Your task to perform on an android device: turn off location history Image 0: 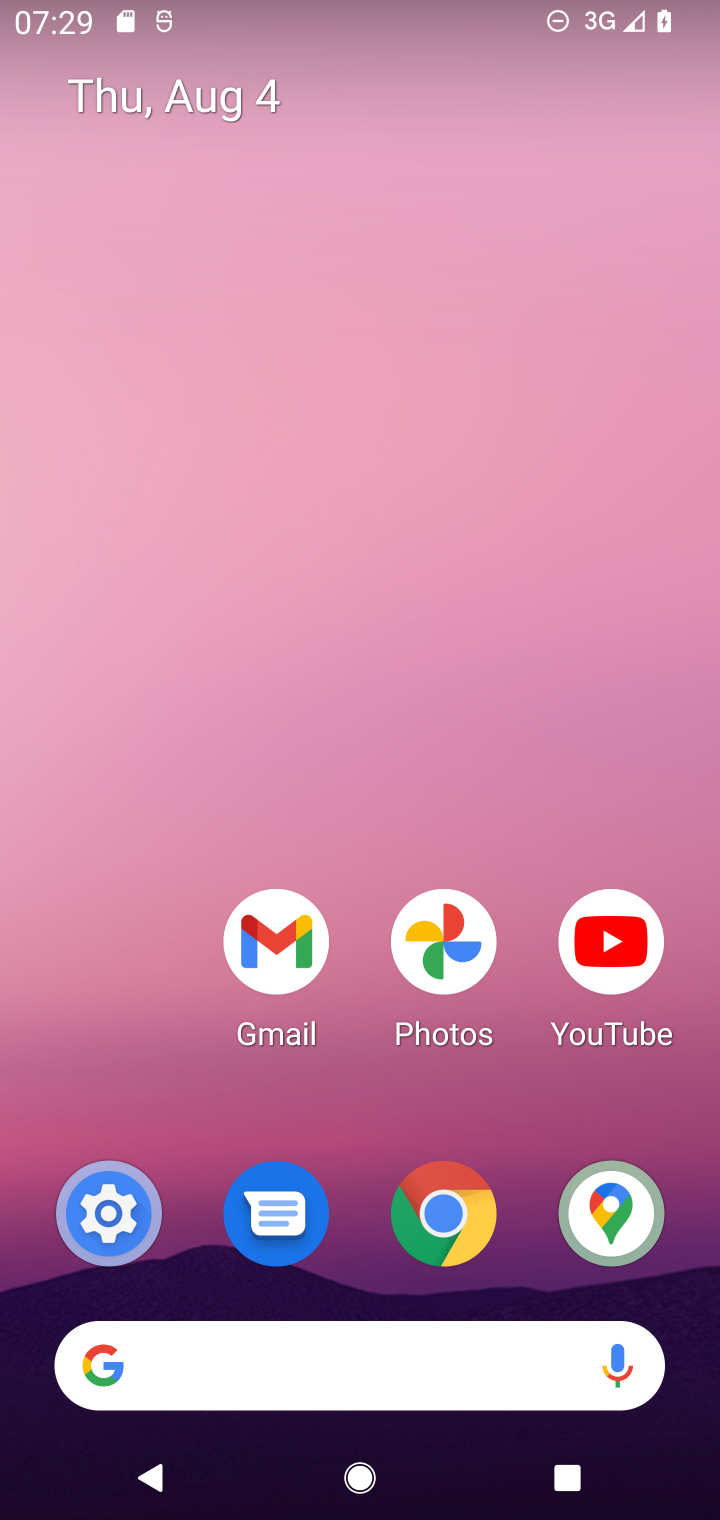
Step 0: press home button
Your task to perform on an android device: turn off location history Image 1: 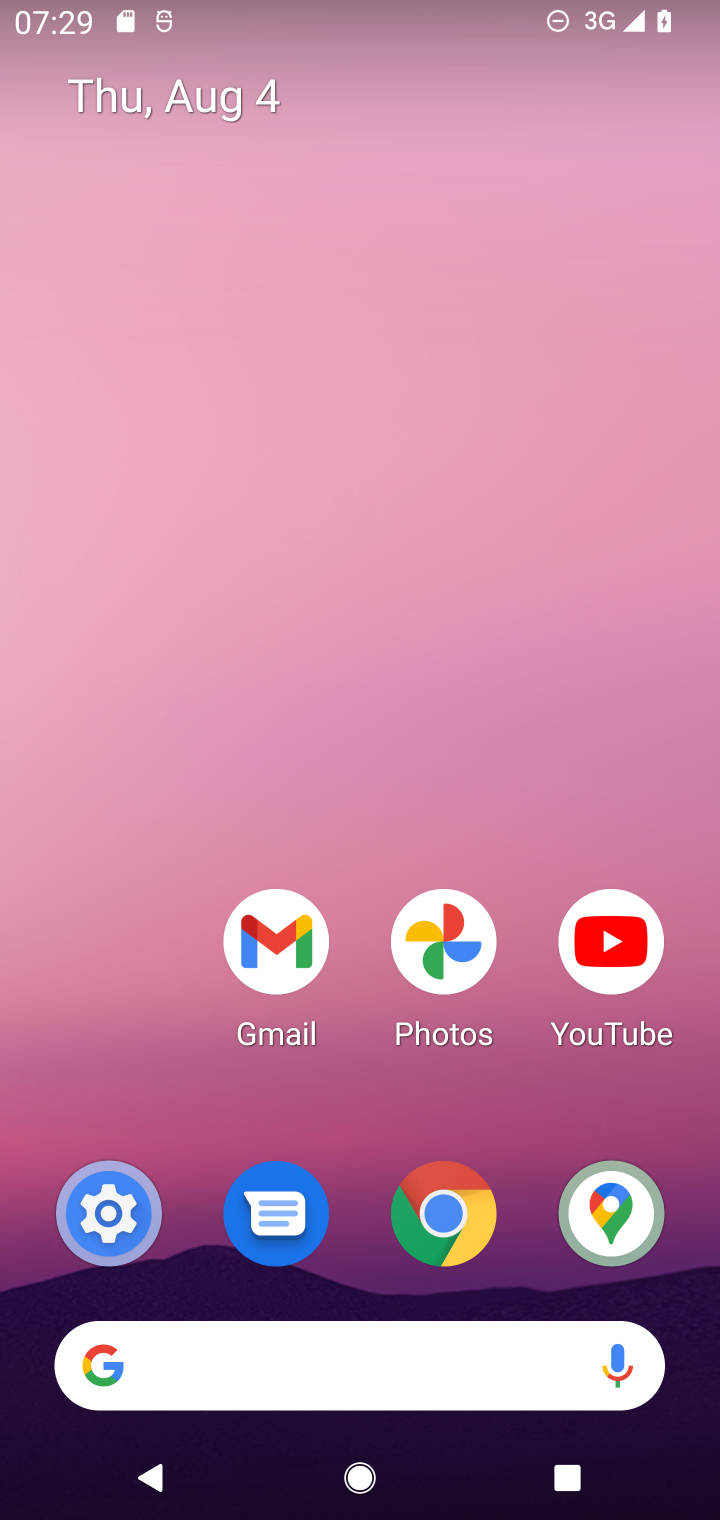
Step 1: drag from (169, 1100) to (160, 371)
Your task to perform on an android device: turn off location history Image 2: 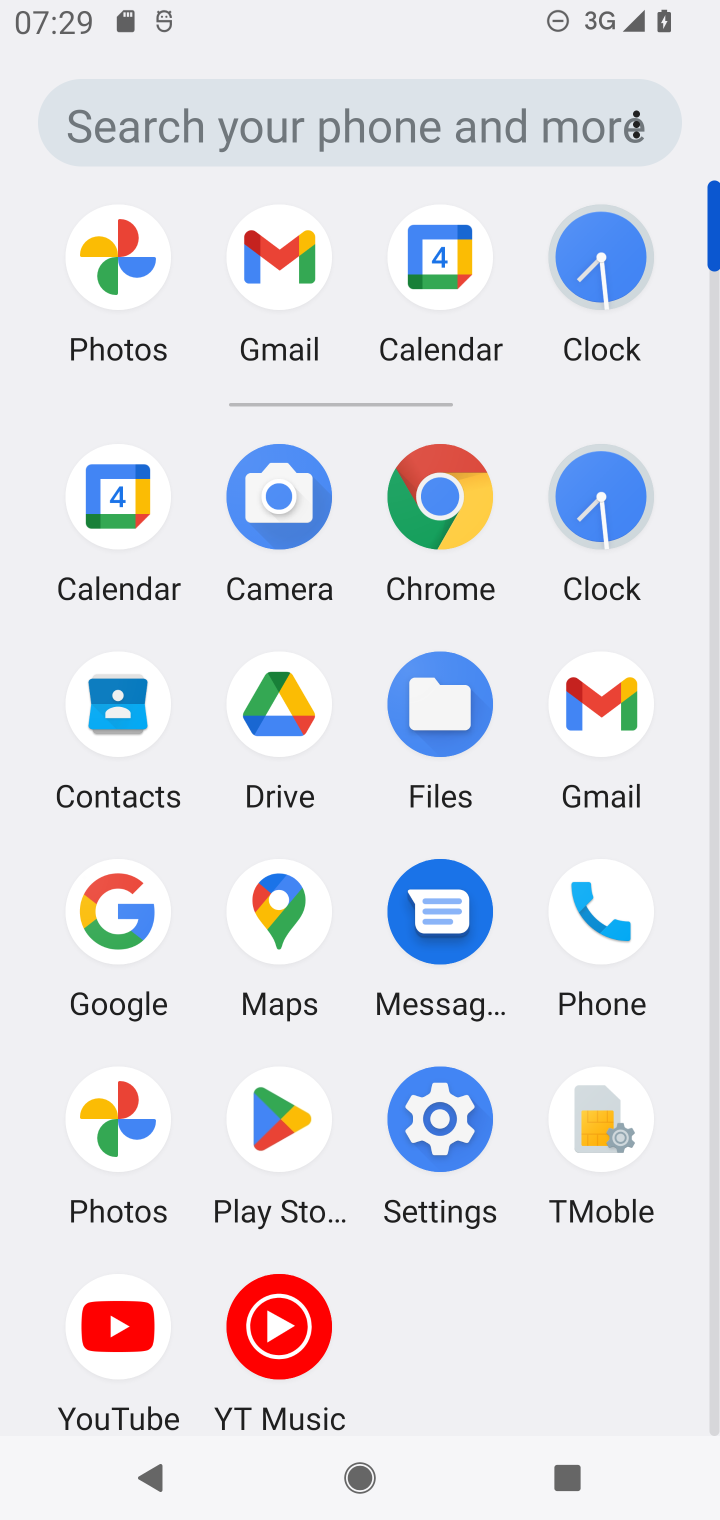
Step 2: click (437, 1135)
Your task to perform on an android device: turn off location history Image 3: 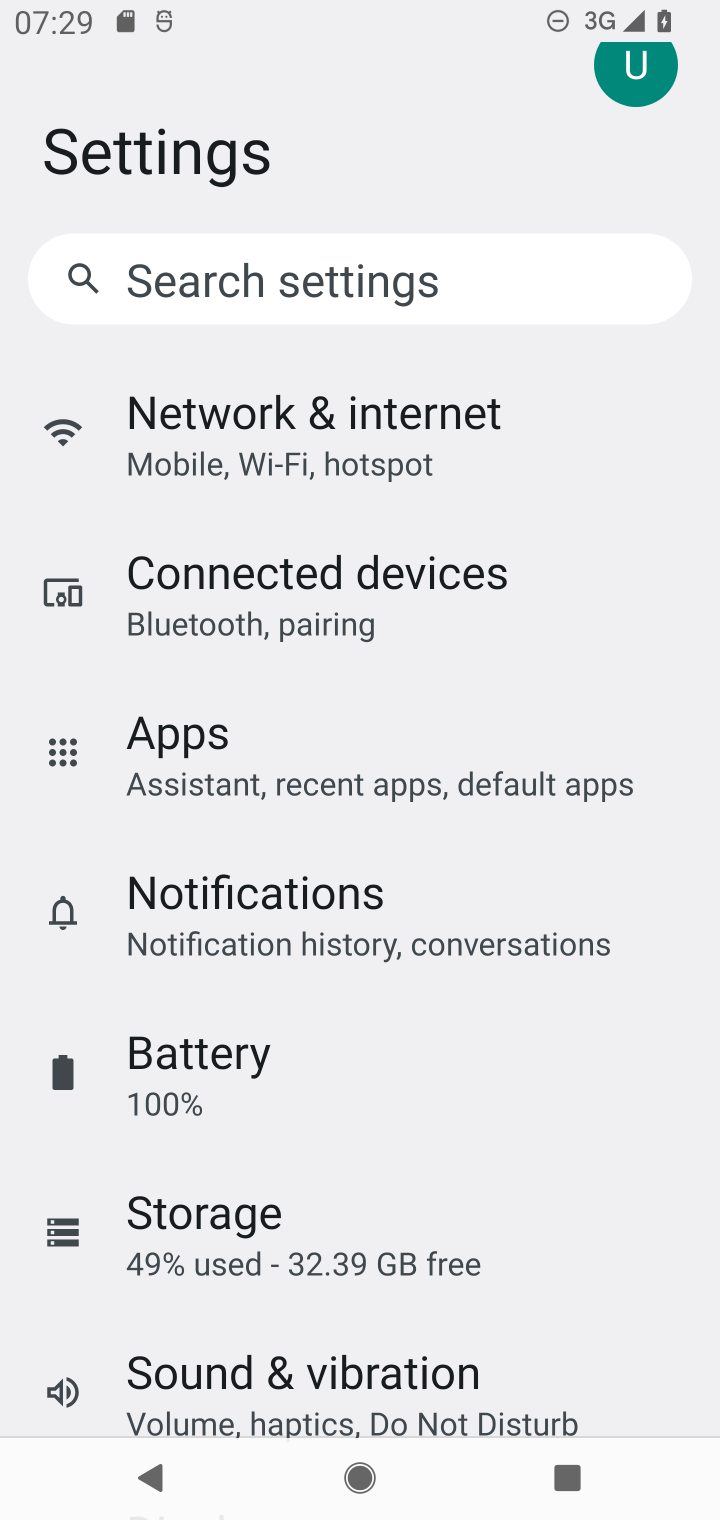
Step 3: drag from (450, 1102) to (483, 915)
Your task to perform on an android device: turn off location history Image 4: 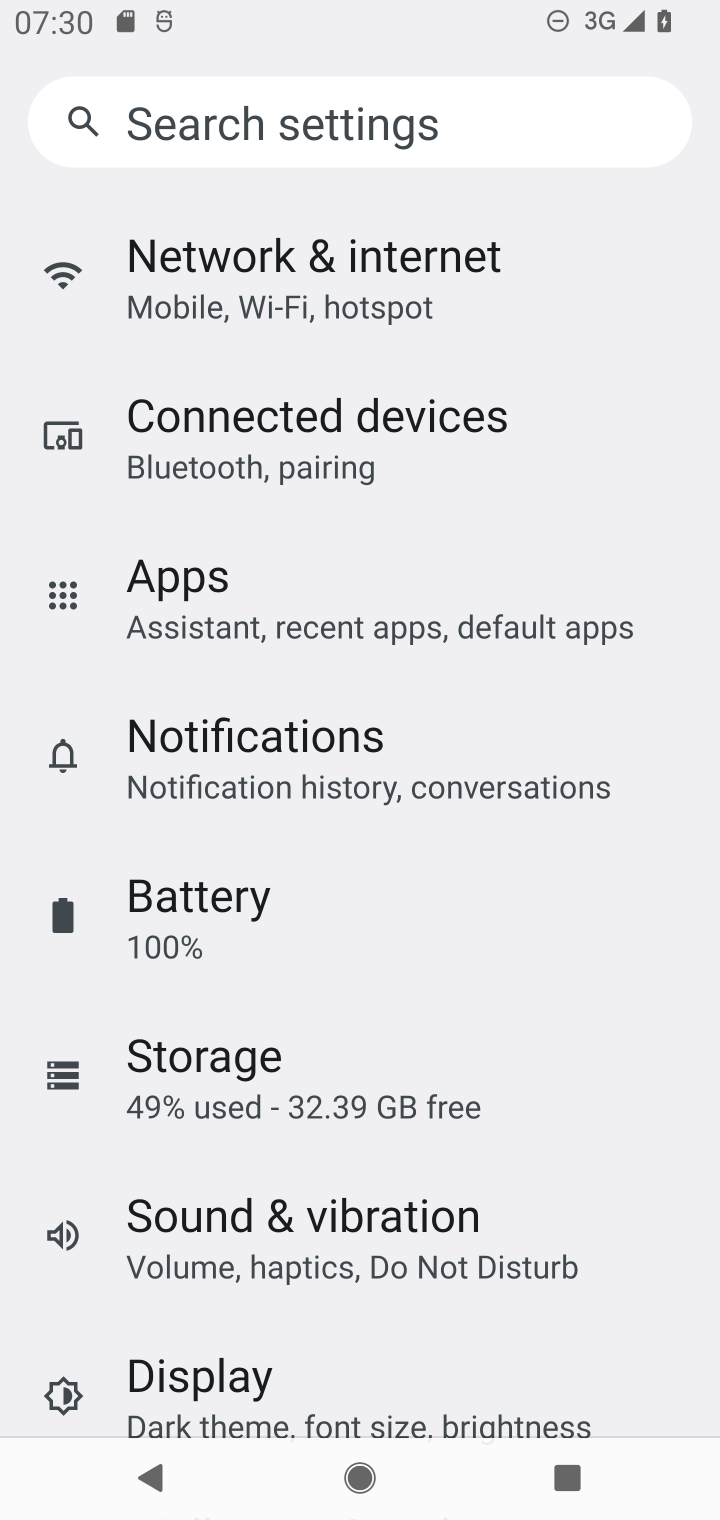
Step 4: drag from (533, 1113) to (563, 917)
Your task to perform on an android device: turn off location history Image 5: 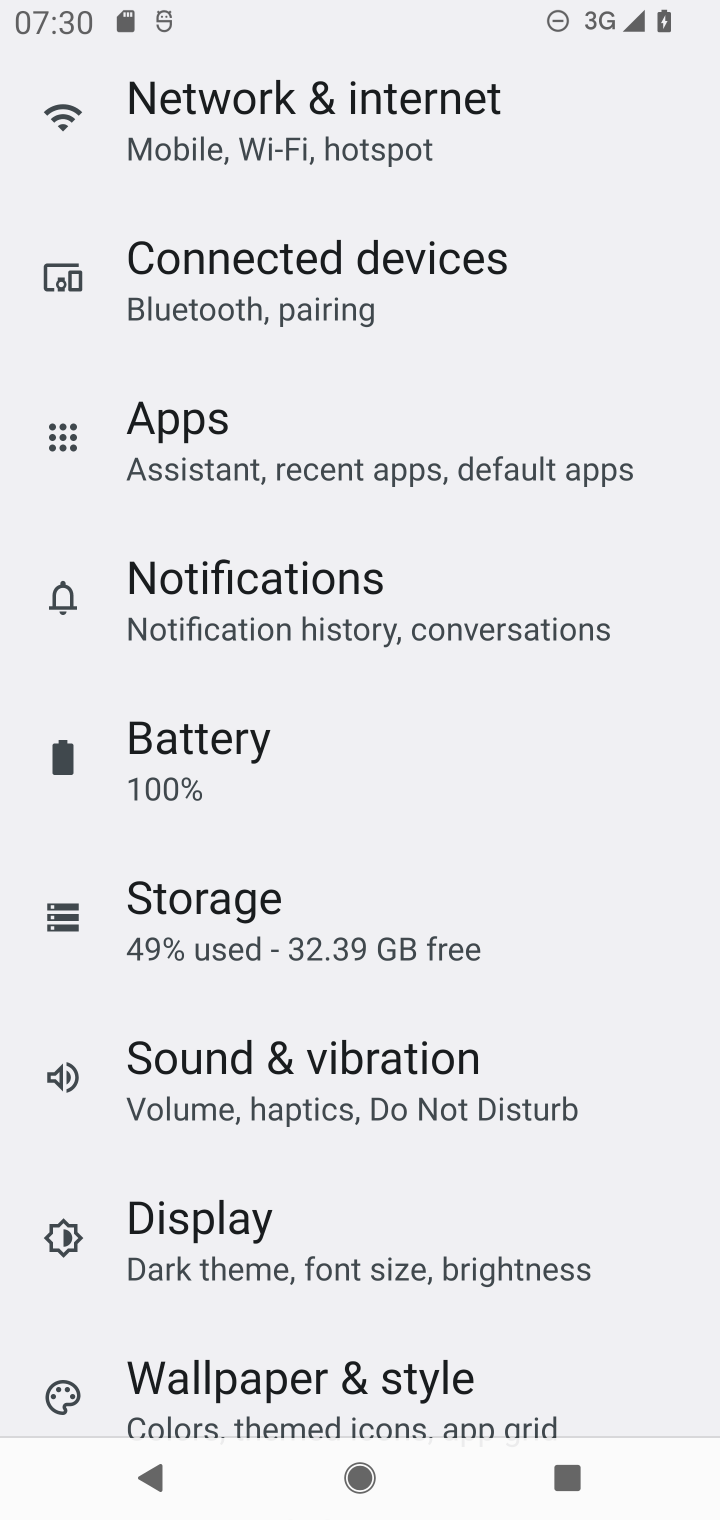
Step 5: drag from (589, 1279) to (593, 1044)
Your task to perform on an android device: turn off location history Image 6: 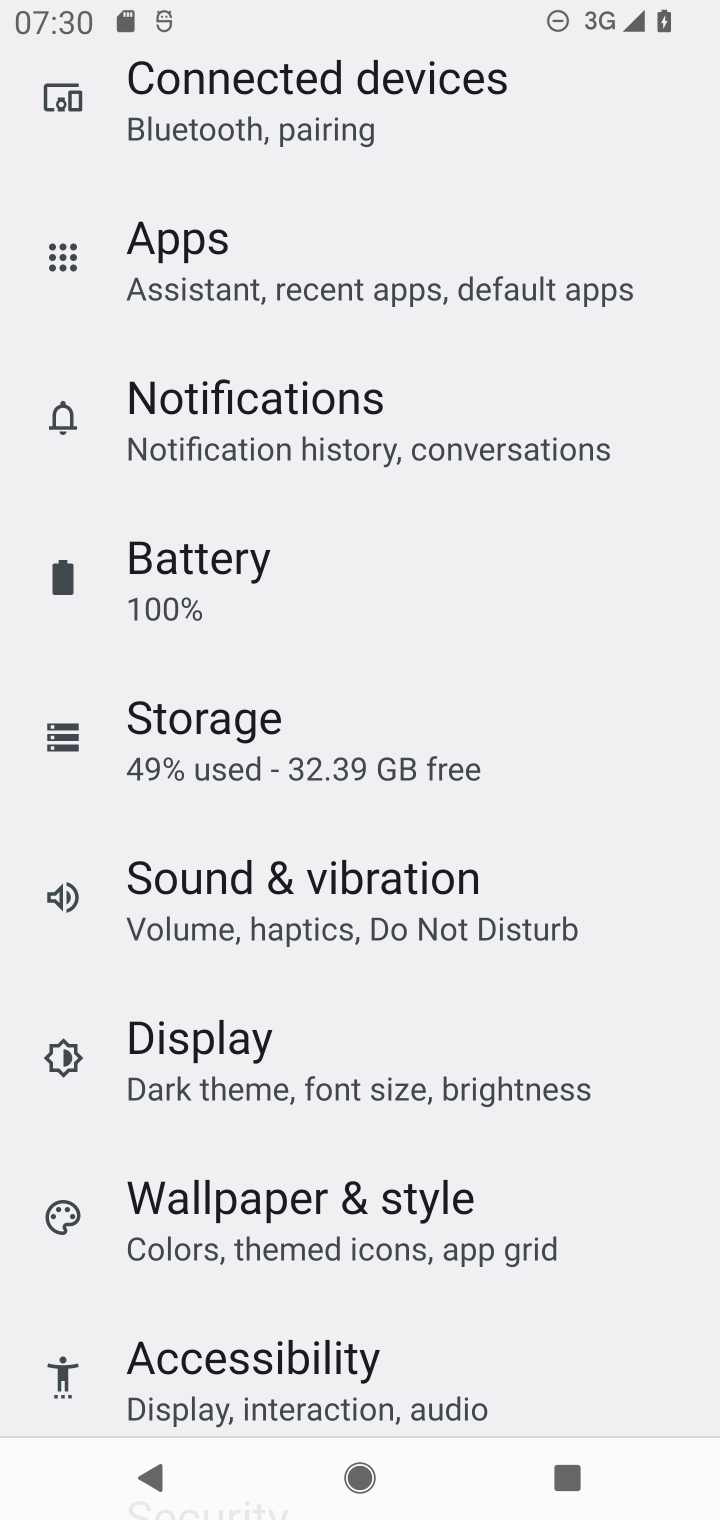
Step 6: drag from (610, 1286) to (598, 1009)
Your task to perform on an android device: turn off location history Image 7: 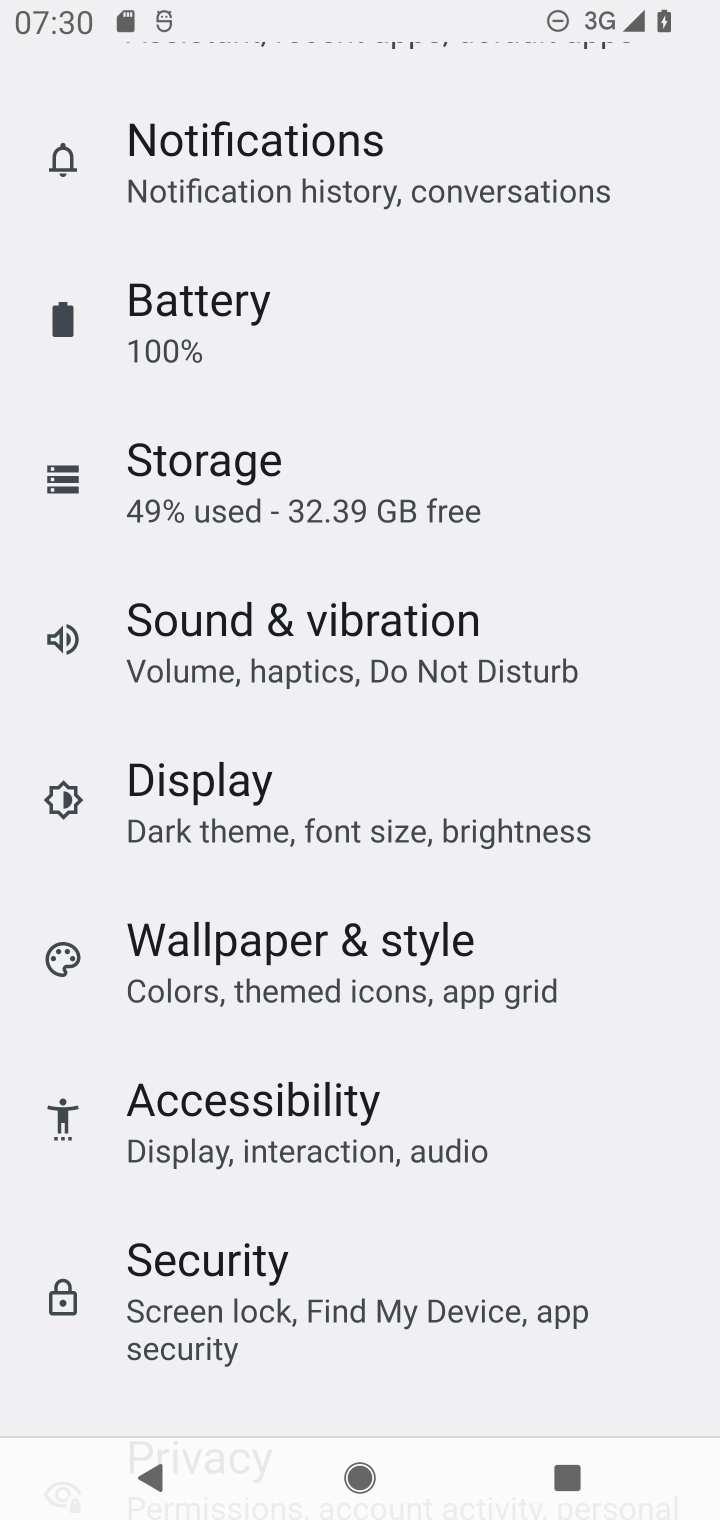
Step 7: drag from (590, 1128) to (586, 843)
Your task to perform on an android device: turn off location history Image 8: 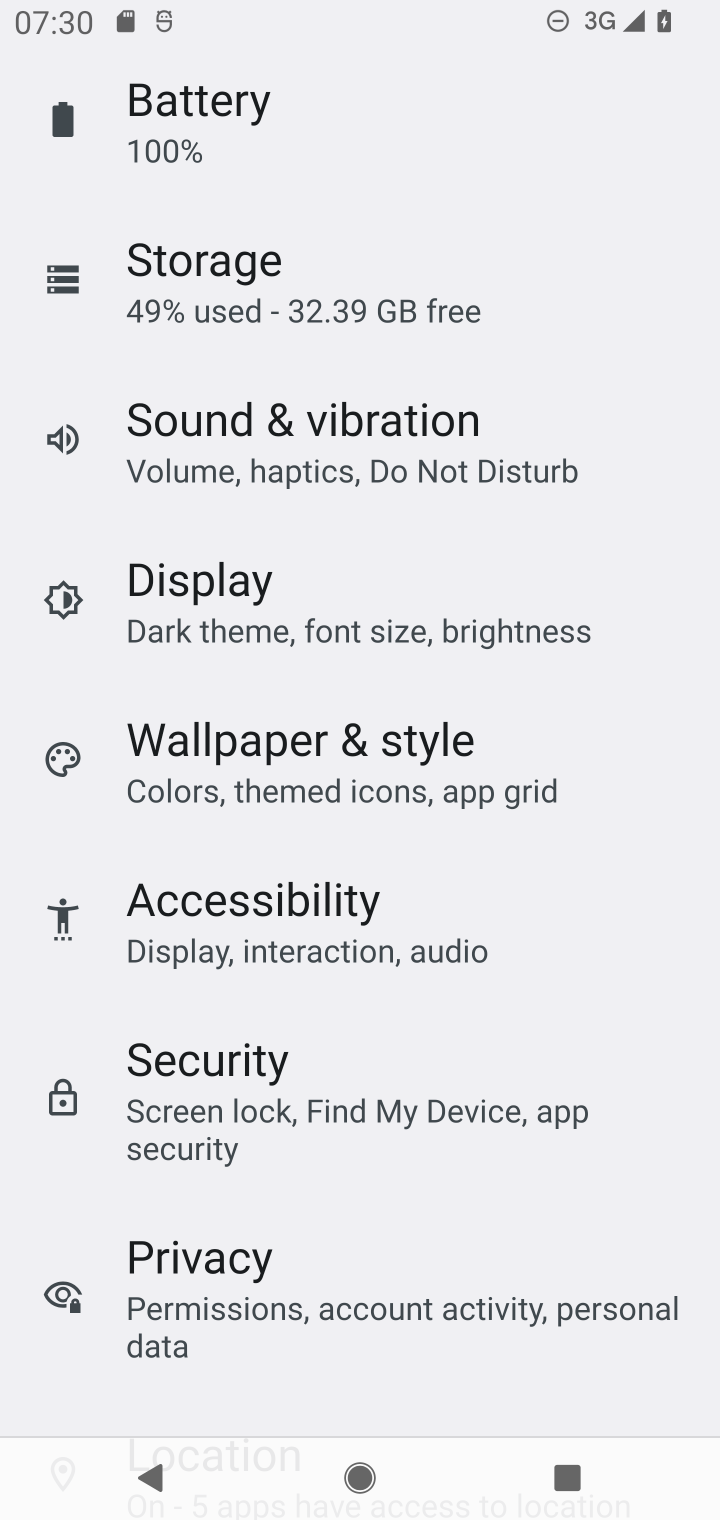
Step 8: drag from (593, 1187) to (610, 981)
Your task to perform on an android device: turn off location history Image 9: 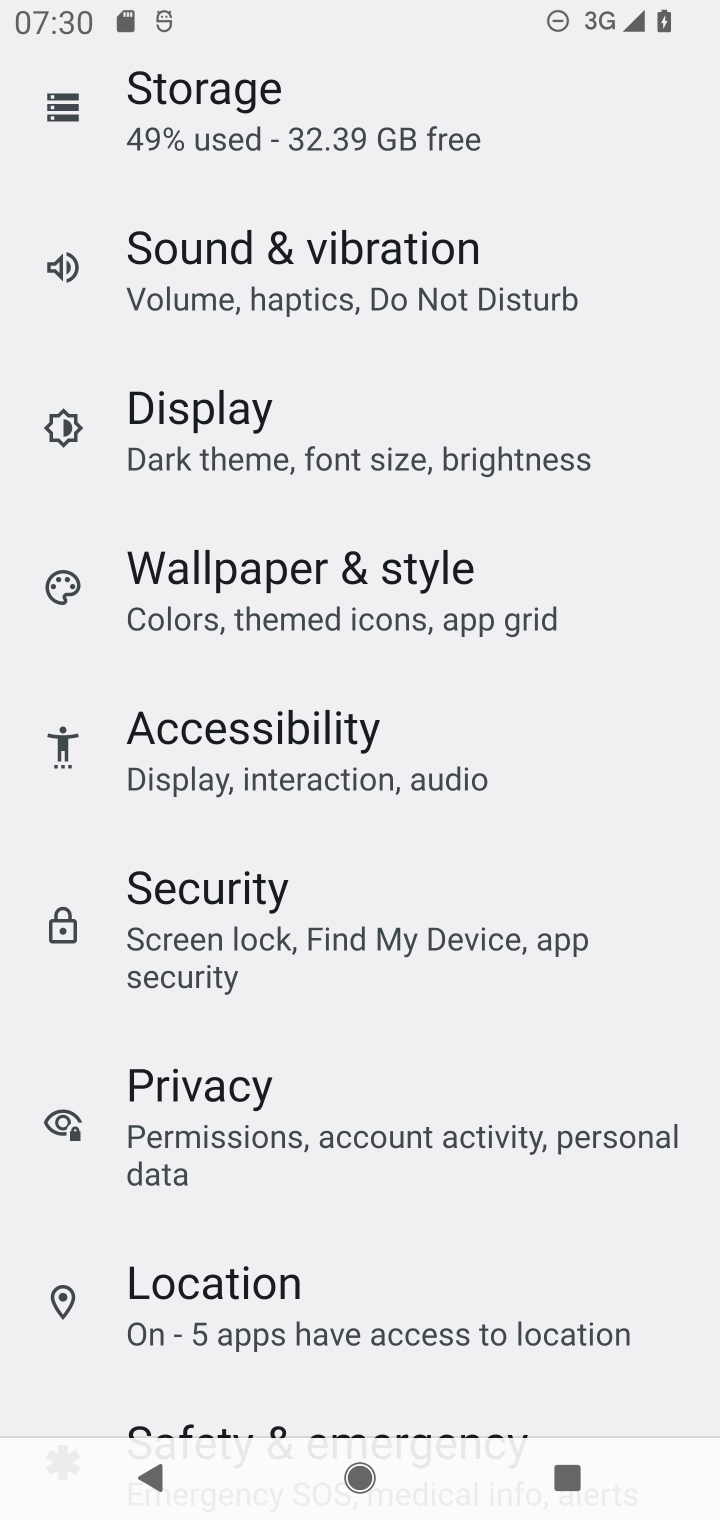
Step 9: drag from (599, 1194) to (600, 972)
Your task to perform on an android device: turn off location history Image 10: 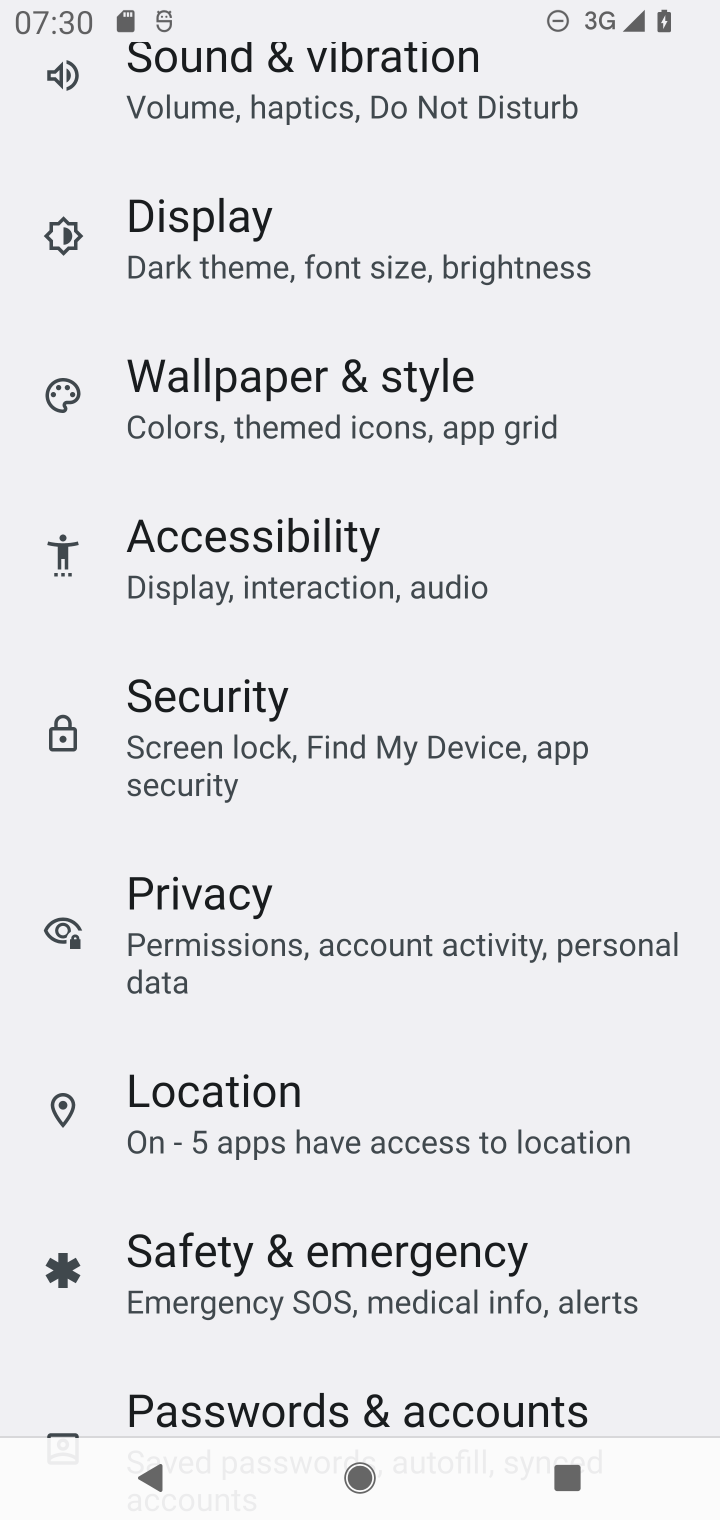
Step 10: drag from (524, 1123) to (487, 823)
Your task to perform on an android device: turn off location history Image 11: 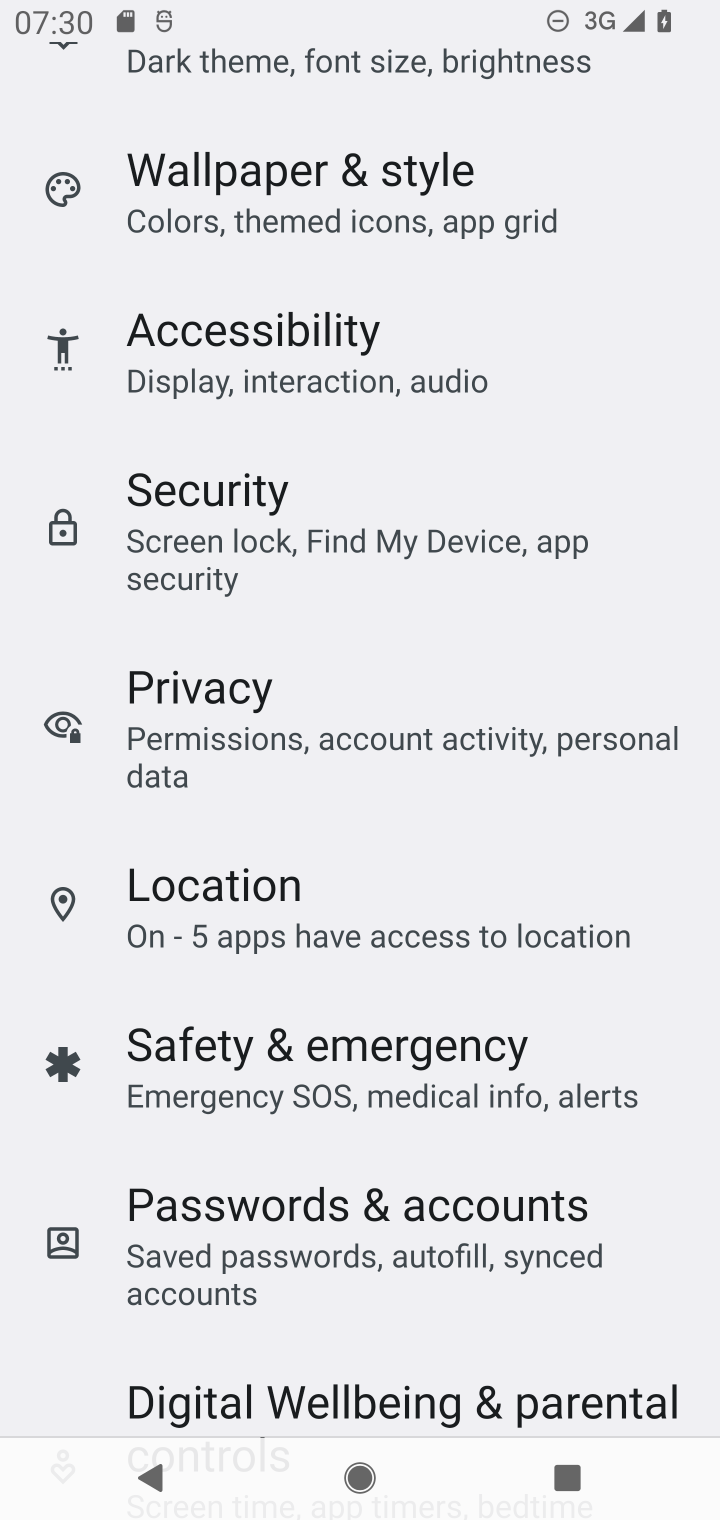
Step 11: click (409, 948)
Your task to perform on an android device: turn off location history Image 12: 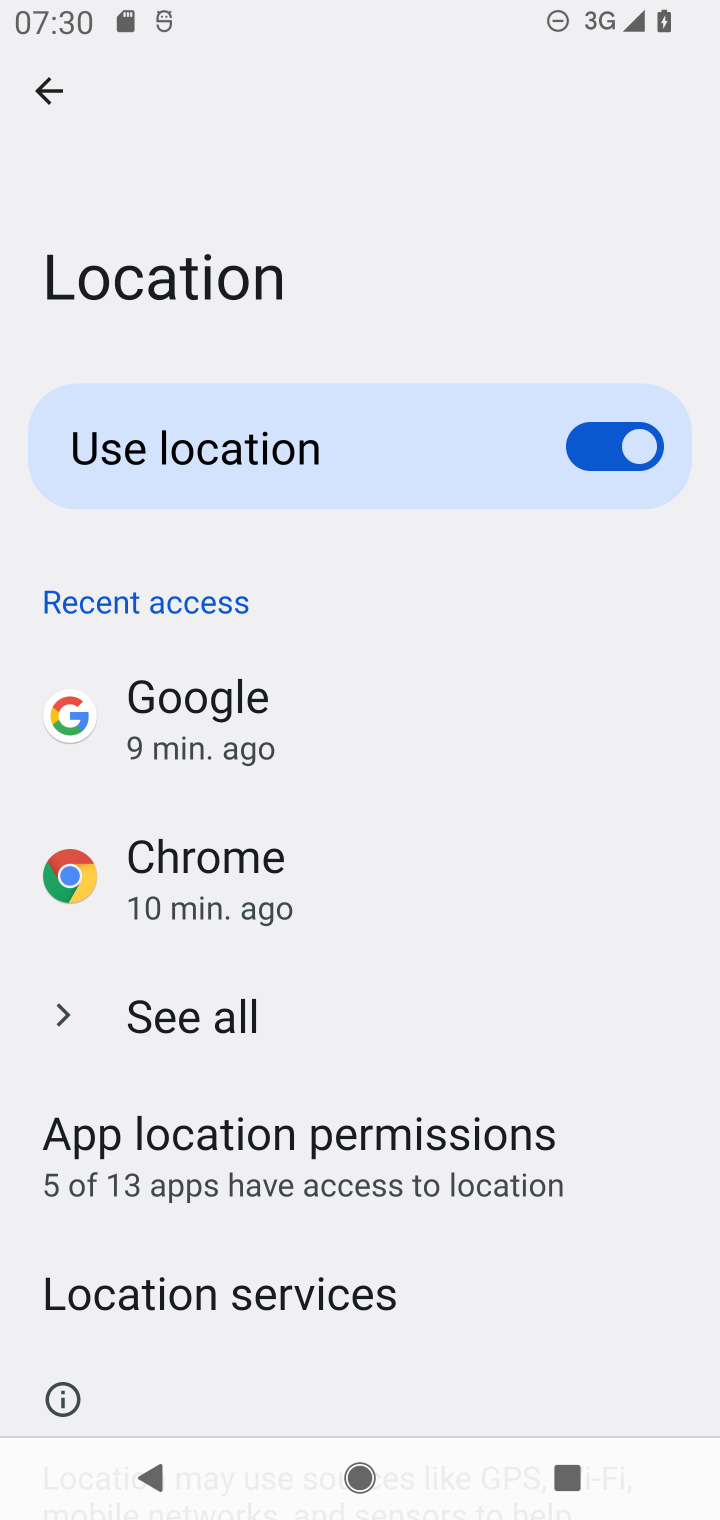
Step 12: click (312, 1301)
Your task to perform on an android device: turn off location history Image 13: 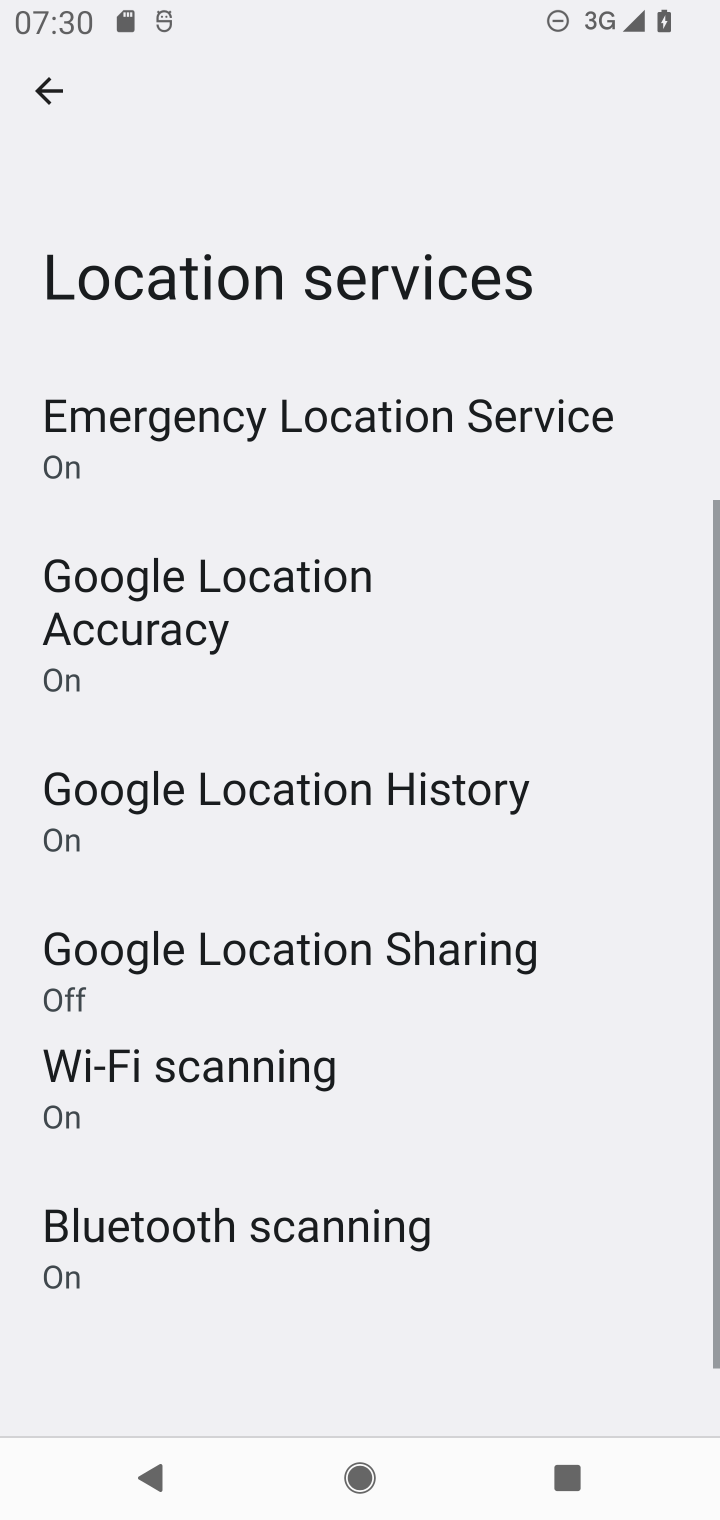
Step 13: drag from (524, 1179) to (525, 873)
Your task to perform on an android device: turn off location history Image 14: 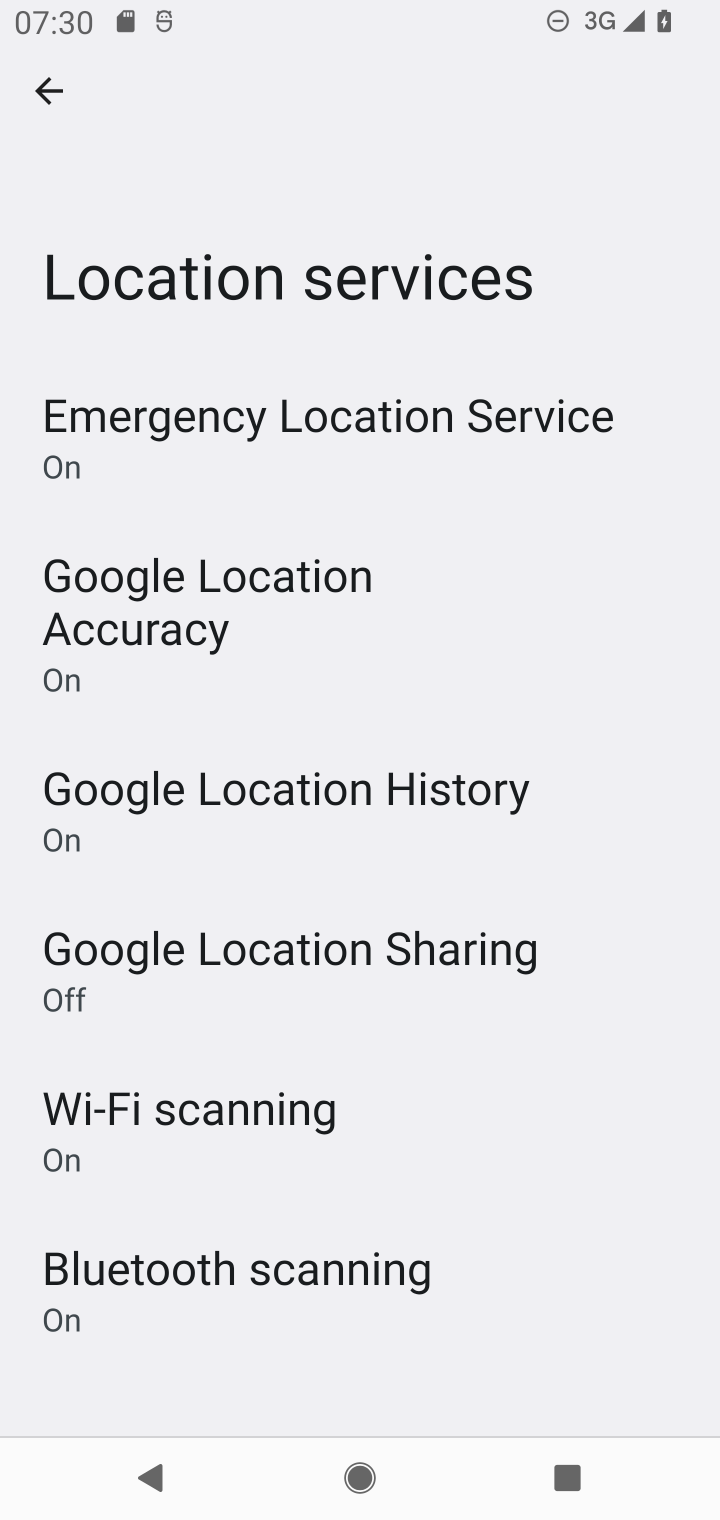
Step 14: click (454, 781)
Your task to perform on an android device: turn off location history Image 15: 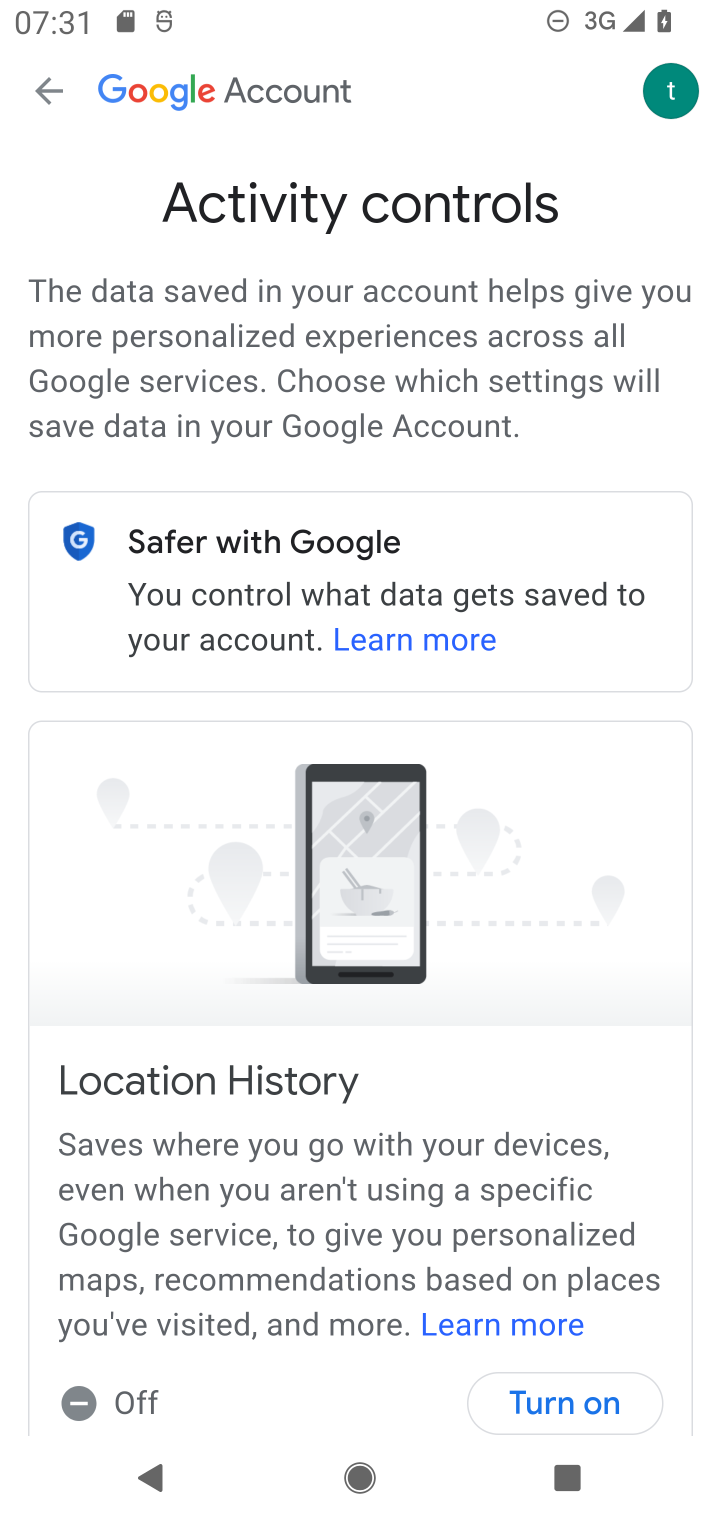
Step 15: task complete